Your task to perform on an android device: Play the last video I watched on Youtube Image 0: 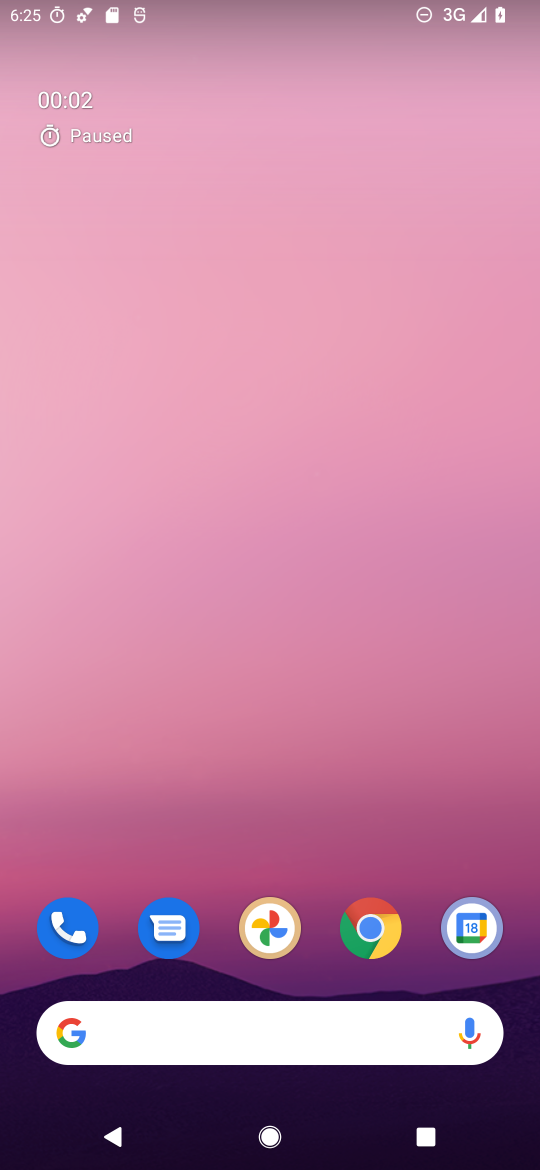
Step 0: drag from (399, 724) to (463, 101)
Your task to perform on an android device: Play the last video I watched on Youtube Image 1: 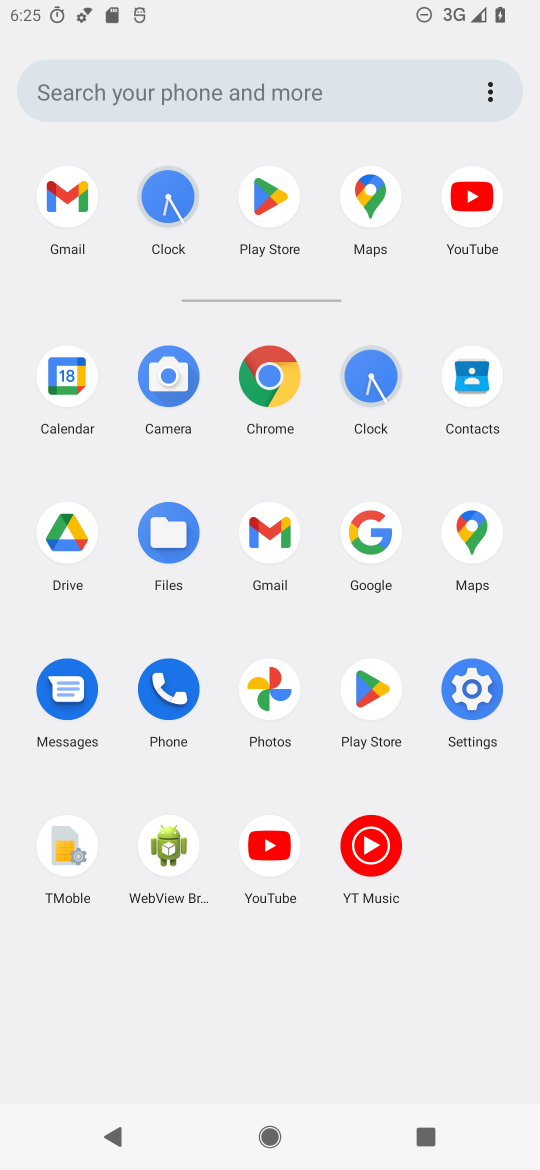
Step 1: click (263, 843)
Your task to perform on an android device: Play the last video I watched on Youtube Image 2: 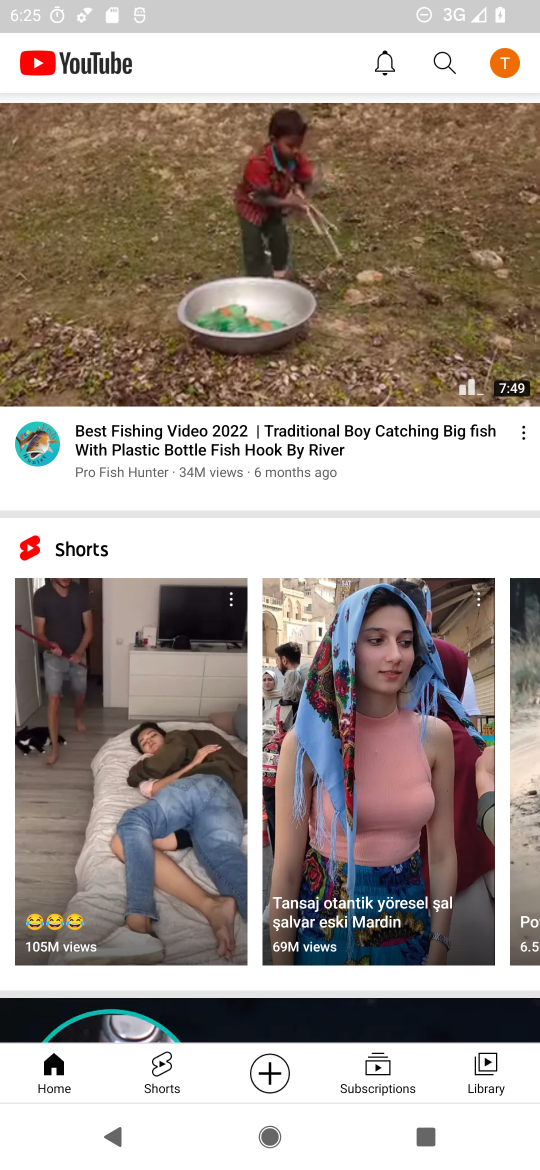
Step 2: click (495, 1090)
Your task to perform on an android device: Play the last video I watched on Youtube Image 3: 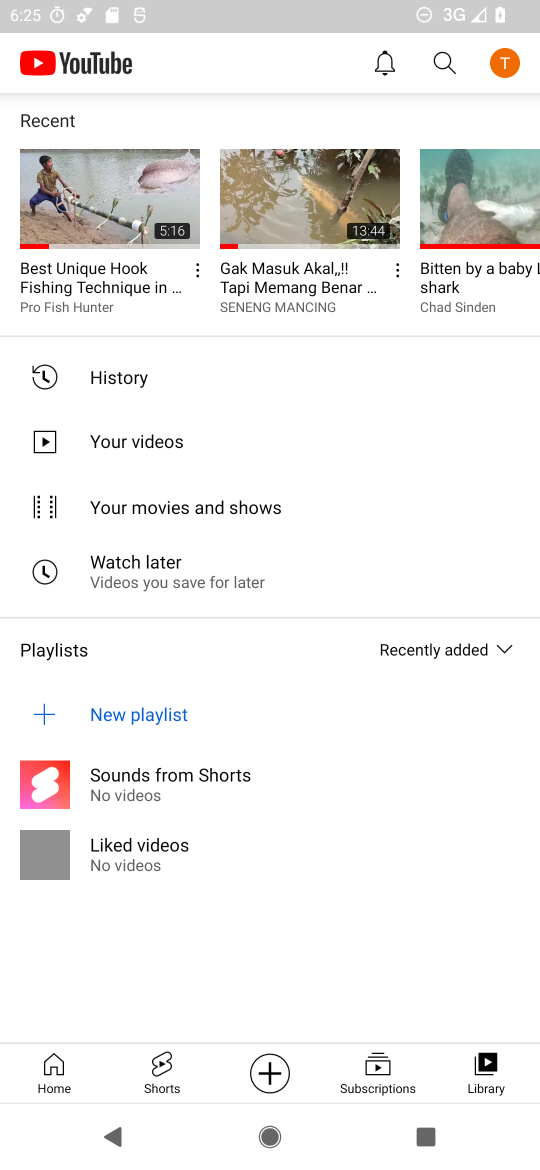
Step 3: click (132, 186)
Your task to perform on an android device: Play the last video I watched on Youtube Image 4: 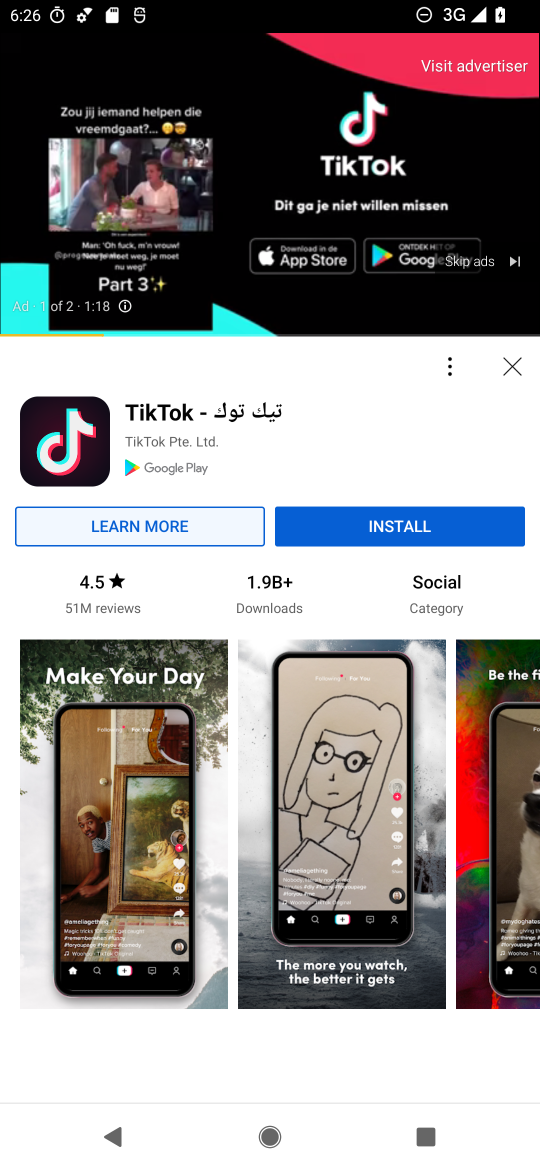
Step 4: click (484, 270)
Your task to perform on an android device: Play the last video I watched on Youtube Image 5: 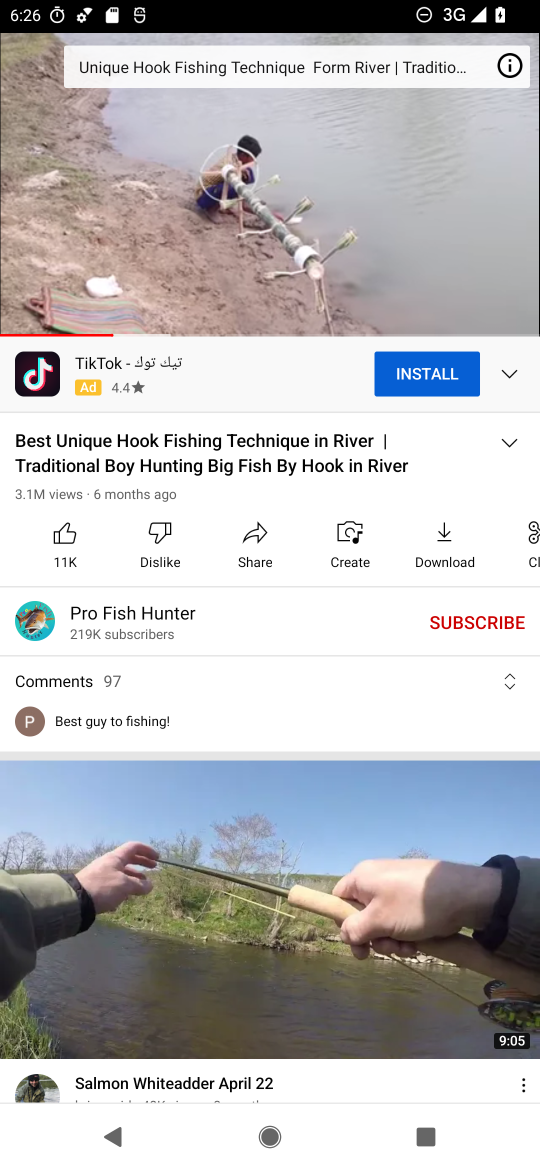
Step 5: task complete